Your task to perform on an android device: Search for vegetarian restaurants on Maps Image 0: 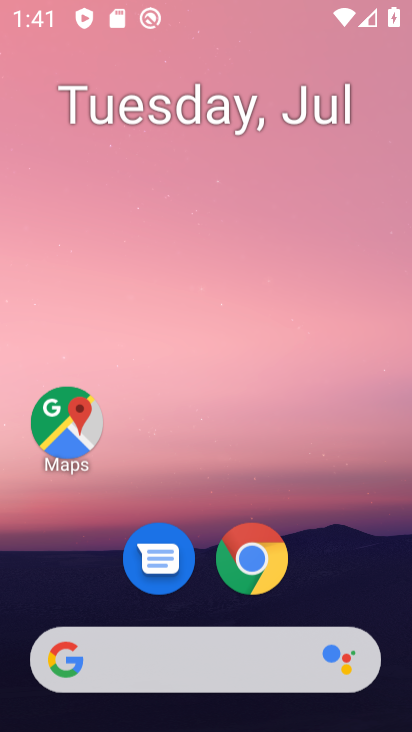
Step 0: press home button
Your task to perform on an android device: Search for vegetarian restaurants on Maps Image 1: 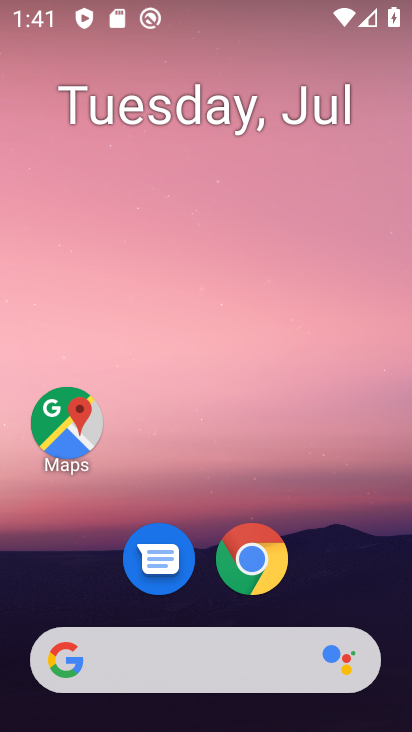
Step 1: drag from (348, 583) to (367, 93)
Your task to perform on an android device: Search for vegetarian restaurants on Maps Image 2: 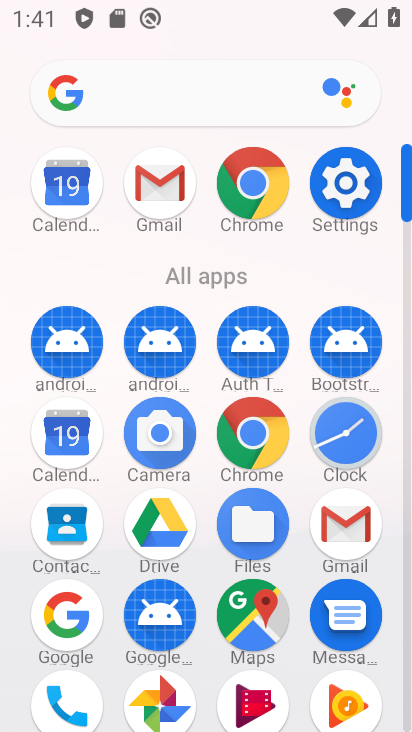
Step 2: drag from (395, 572) to (394, 395)
Your task to perform on an android device: Search for vegetarian restaurants on Maps Image 3: 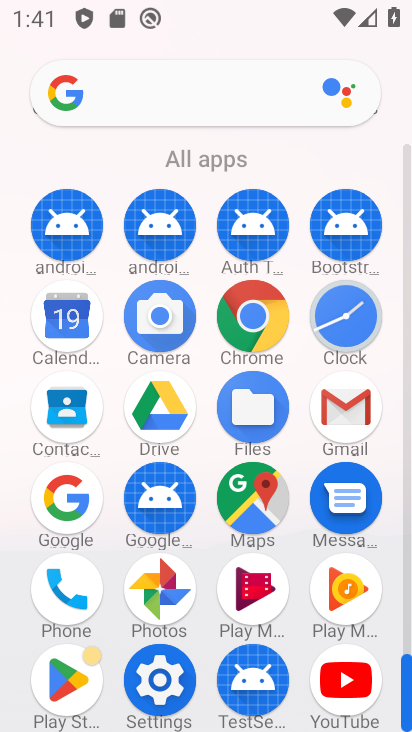
Step 3: click (250, 502)
Your task to perform on an android device: Search for vegetarian restaurants on Maps Image 4: 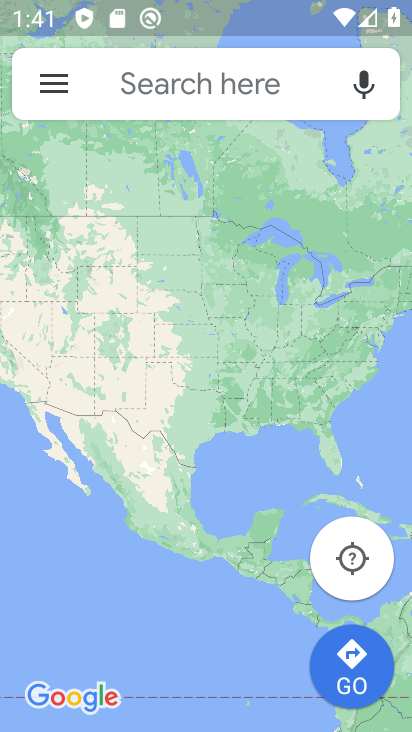
Step 4: click (154, 88)
Your task to perform on an android device: Search for vegetarian restaurants on Maps Image 5: 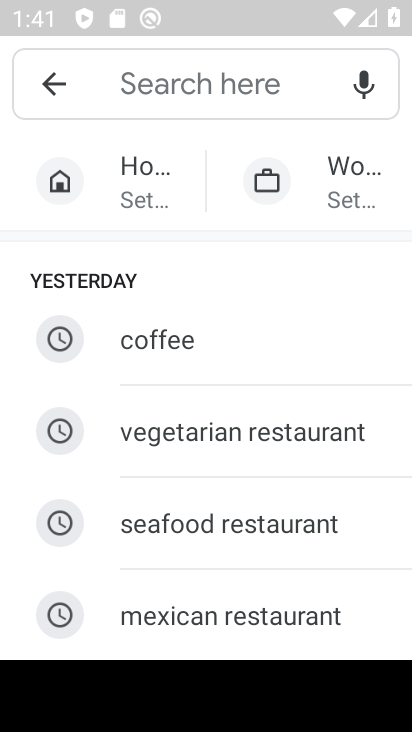
Step 5: click (307, 428)
Your task to perform on an android device: Search for vegetarian restaurants on Maps Image 6: 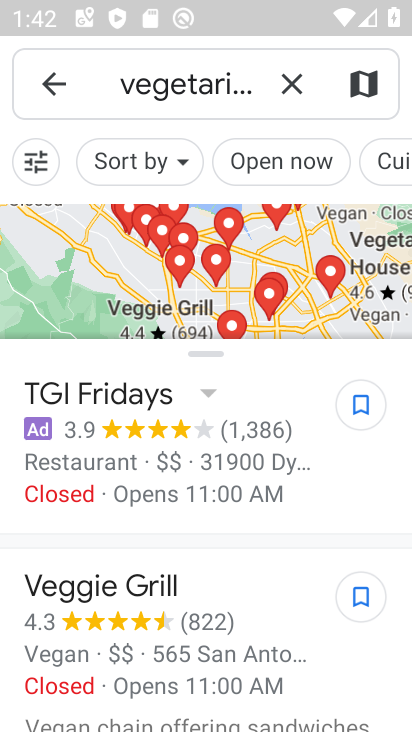
Step 6: task complete